Your task to perform on an android device: toggle translation in the chrome app Image 0: 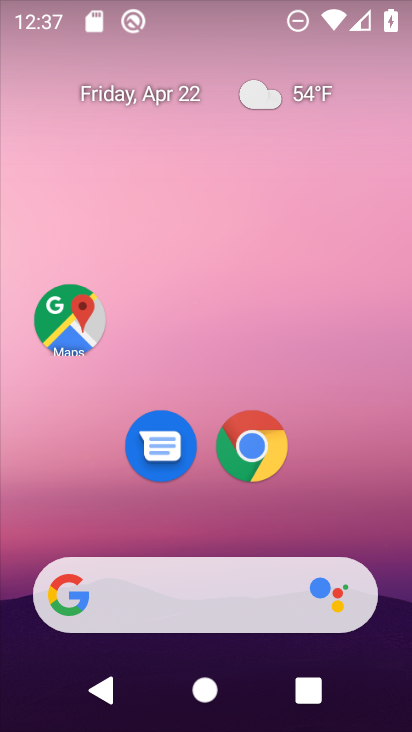
Step 0: click (265, 469)
Your task to perform on an android device: toggle translation in the chrome app Image 1: 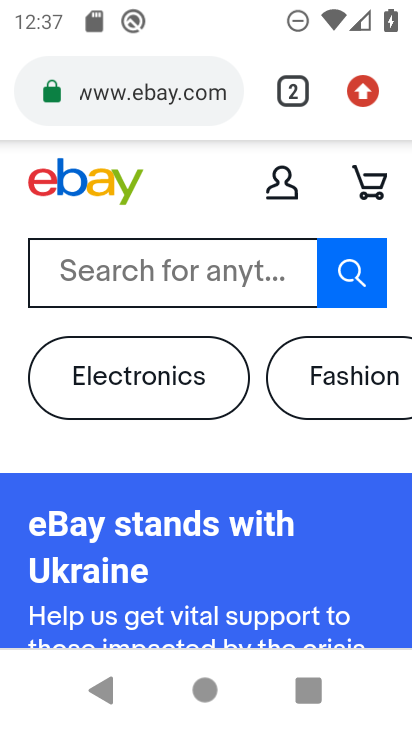
Step 1: drag from (367, 128) to (232, 476)
Your task to perform on an android device: toggle translation in the chrome app Image 2: 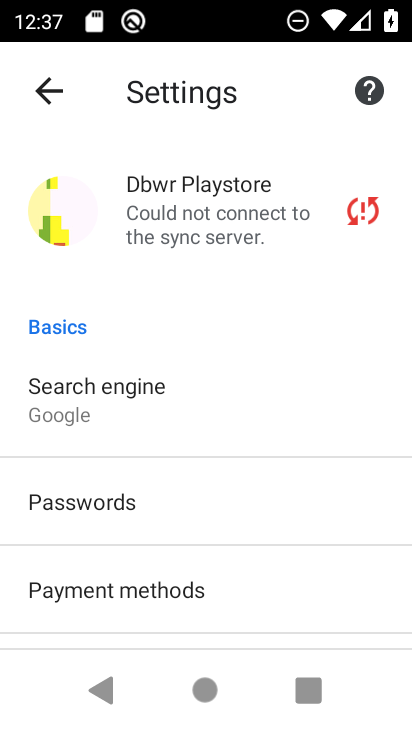
Step 2: drag from (254, 611) to (223, 214)
Your task to perform on an android device: toggle translation in the chrome app Image 3: 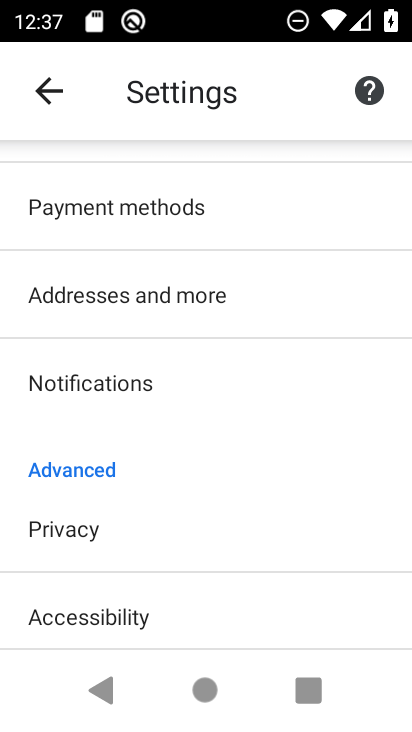
Step 3: drag from (294, 530) to (250, 126)
Your task to perform on an android device: toggle translation in the chrome app Image 4: 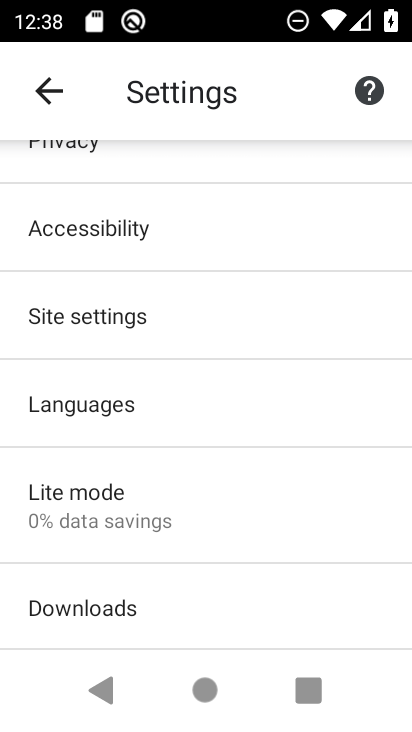
Step 4: click (243, 395)
Your task to perform on an android device: toggle translation in the chrome app Image 5: 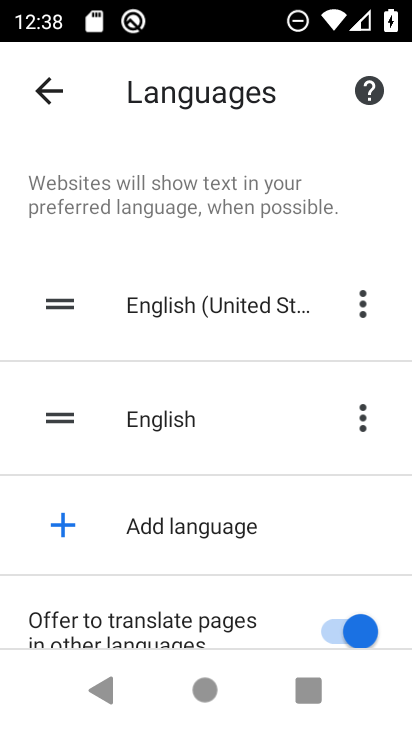
Step 5: click (337, 628)
Your task to perform on an android device: toggle translation in the chrome app Image 6: 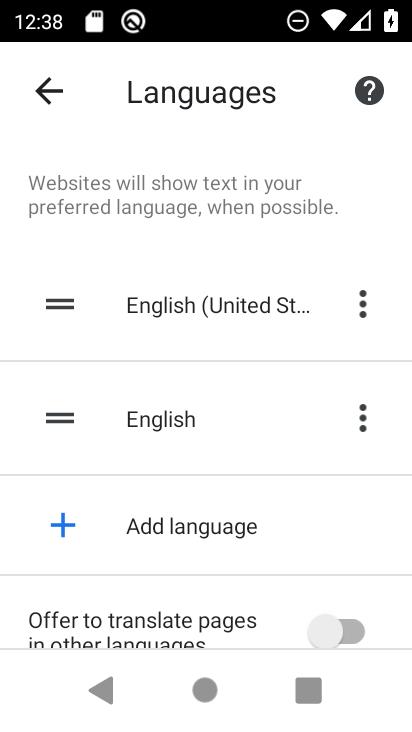
Step 6: task complete